Your task to perform on an android device: turn on the 24-hour format for clock Image 0: 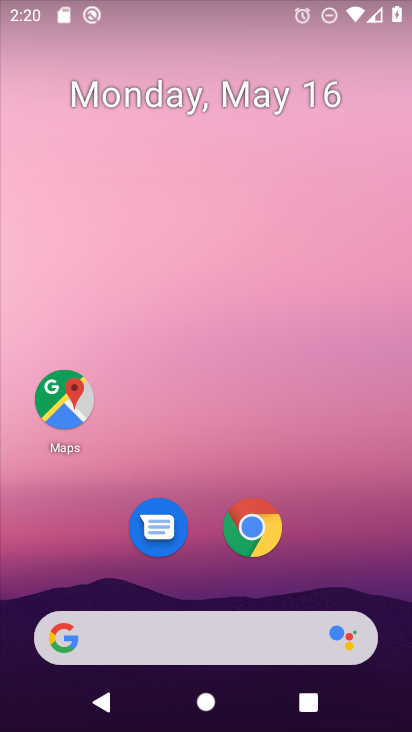
Step 0: drag from (344, 561) to (335, 34)
Your task to perform on an android device: turn on the 24-hour format for clock Image 1: 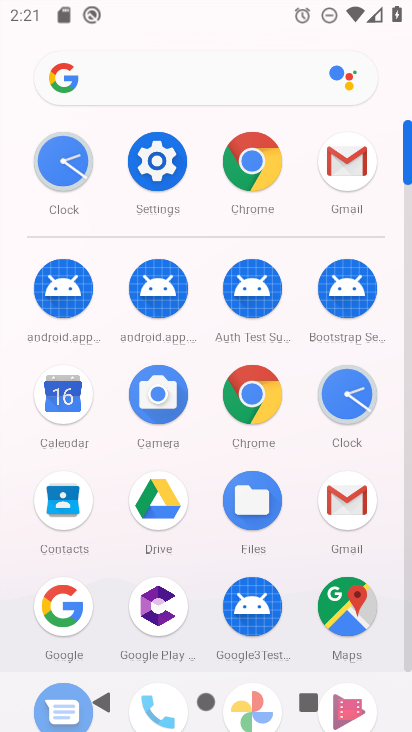
Step 1: click (54, 146)
Your task to perform on an android device: turn on the 24-hour format for clock Image 2: 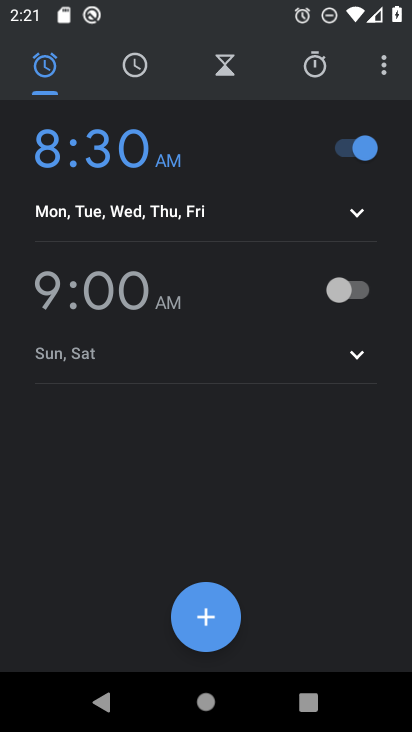
Step 2: click (370, 65)
Your task to perform on an android device: turn on the 24-hour format for clock Image 3: 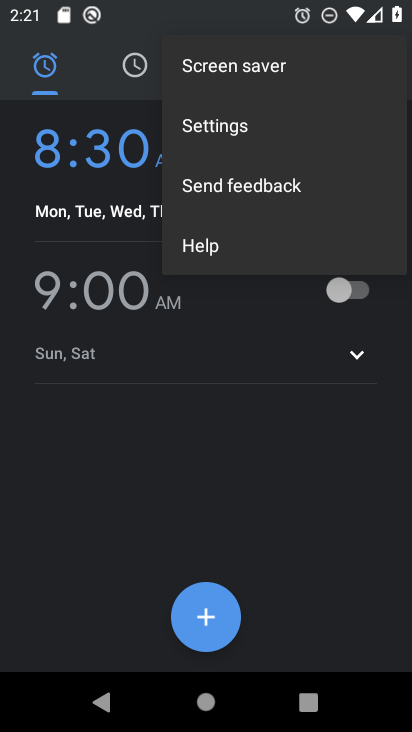
Step 3: click (256, 128)
Your task to perform on an android device: turn on the 24-hour format for clock Image 4: 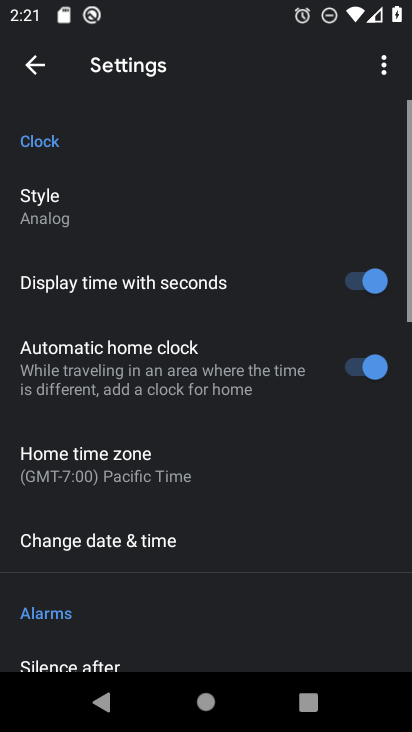
Step 4: drag from (233, 558) to (260, 203)
Your task to perform on an android device: turn on the 24-hour format for clock Image 5: 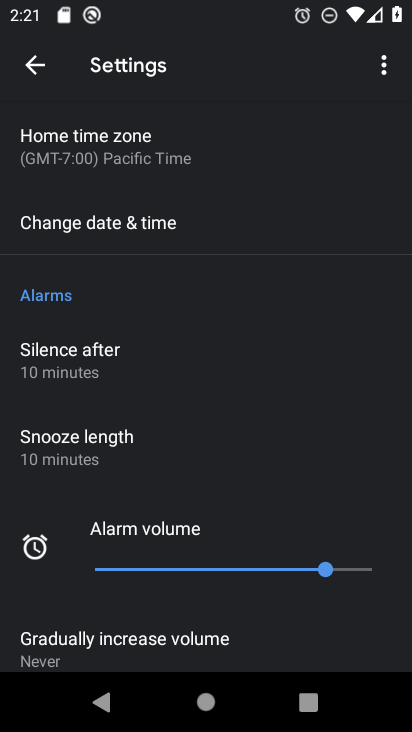
Step 5: drag from (192, 224) to (187, 458)
Your task to perform on an android device: turn on the 24-hour format for clock Image 6: 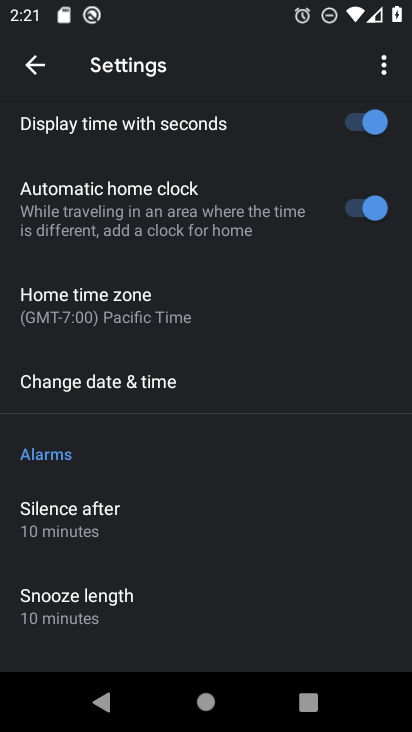
Step 6: drag from (190, 356) to (177, 620)
Your task to perform on an android device: turn on the 24-hour format for clock Image 7: 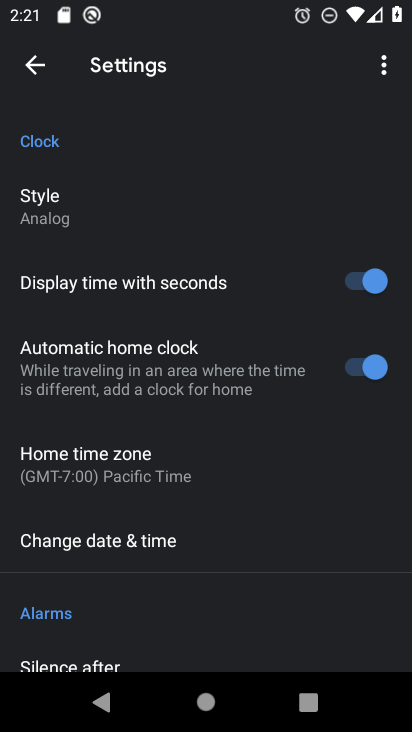
Step 7: click (373, 83)
Your task to perform on an android device: turn on the 24-hour format for clock Image 8: 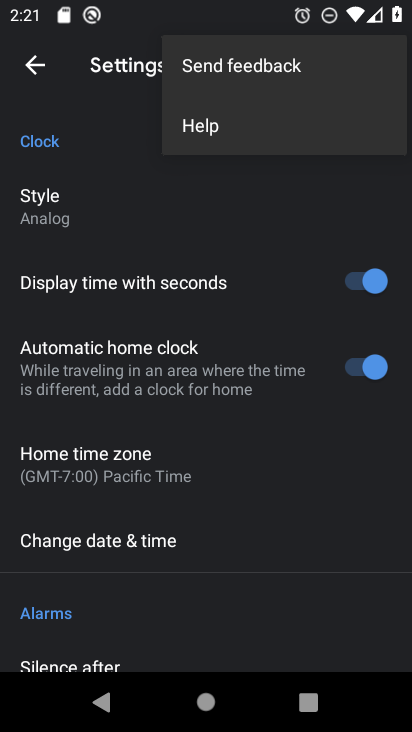
Step 8: click (228, 279)
Your task to perform on an android device: turn on the 24-hour format for clock Image 9: 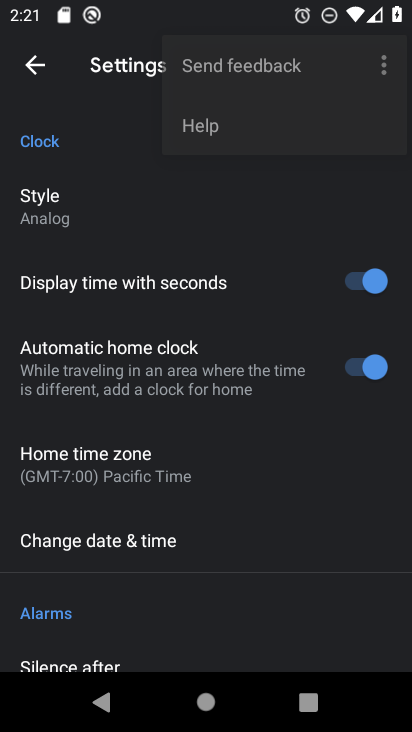
Step 9: drag from (228, 279) to (194, 689)
Your task to perform on an android device: turn on the 24-hour format for clock Image 10: 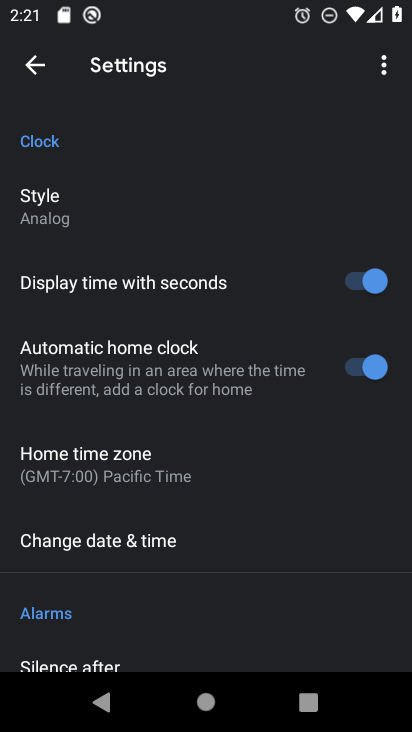
Step 10: click (128, 548)
Your task to perform on an android device: turn on the 24-hour format for clock Image 11: 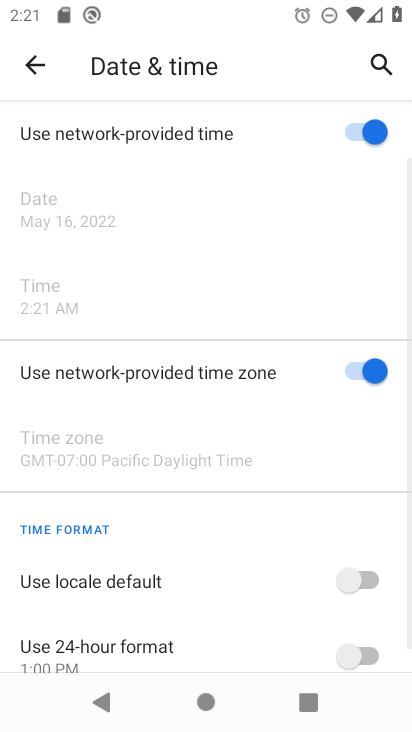
Step 11: drag from (119, 474) to (131, 280)
Your task to perform on an android device: turn on the 24-hour format for clock Image 12: 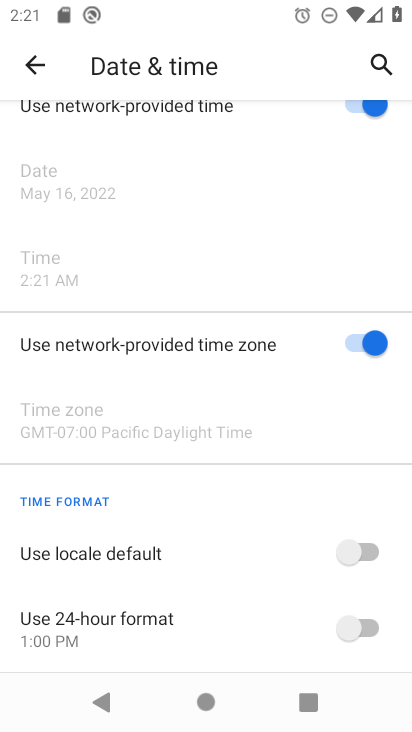
Step 12: drag from (169, 569) to (201, 295)
Your task to perform on an android device: turn on the 24-hour format for clock Image 13: 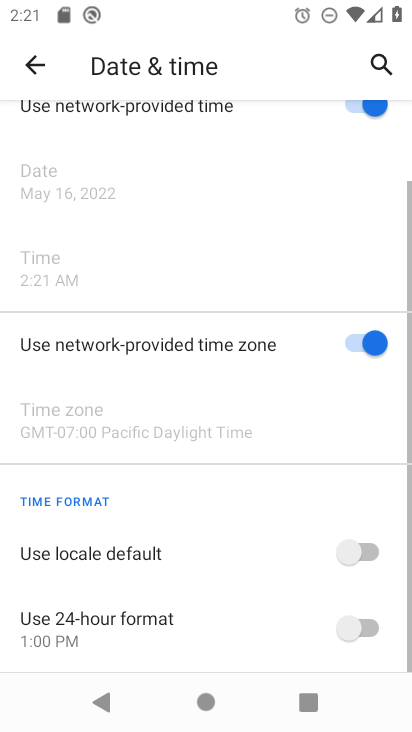
Step 13: drag from (201, 295) to (269, 151)
Your task to perform on an android device: turn on the 24-hour format for clock Image 14: 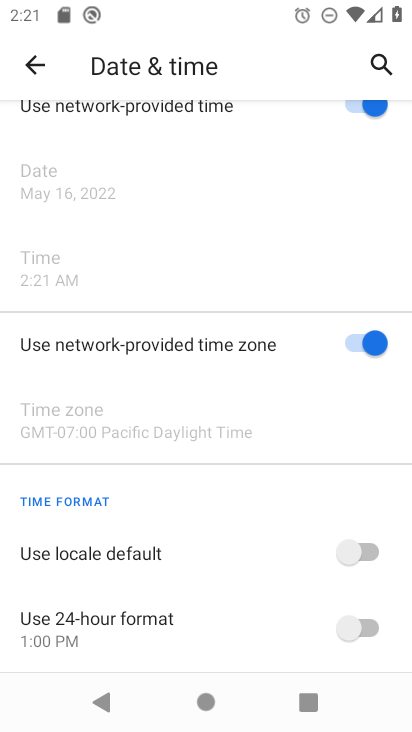
Step 14: click (141, 604)
Your task to perform on an android device: turn on the 24-hour format for clock Image 15: 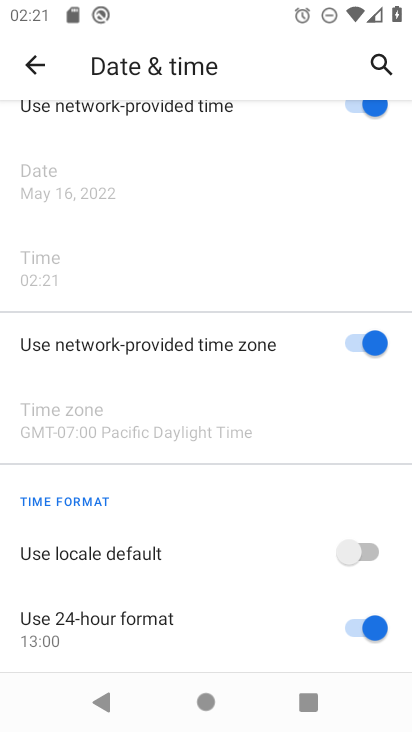
Step 15: click (175, 583)
Your task to perform on an android device: turn on the 24-hour format for clock Image 16: 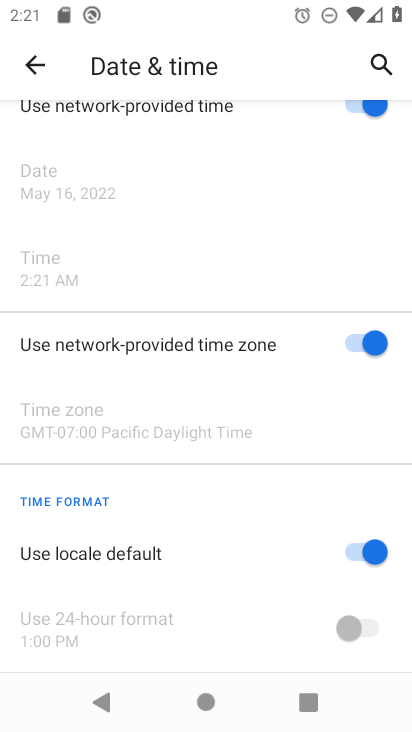
Step 16: click (356, 551)
Your task to perform on an android device: turn on the 24-hour format for clock Image 17: 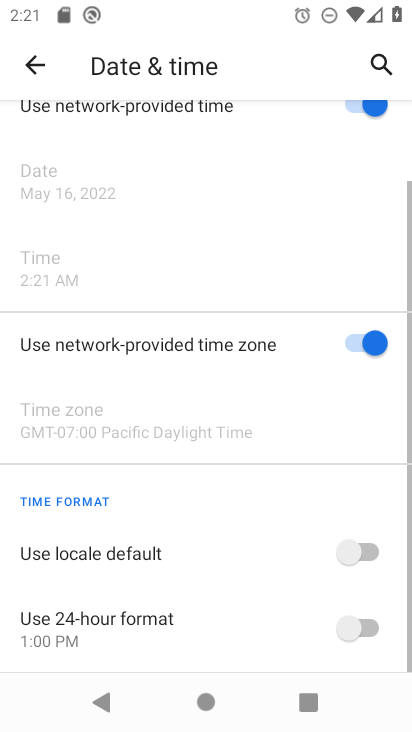
Step 17: click (337, 632)
Your task to perform on an android device: turn on the 24-hour format for clock Image 18: 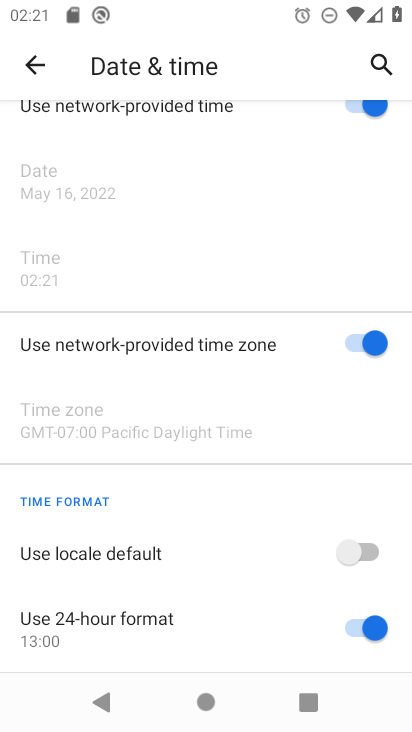
Step 18: task complete